Your task to perform on an android device: Go to Google Image 0: 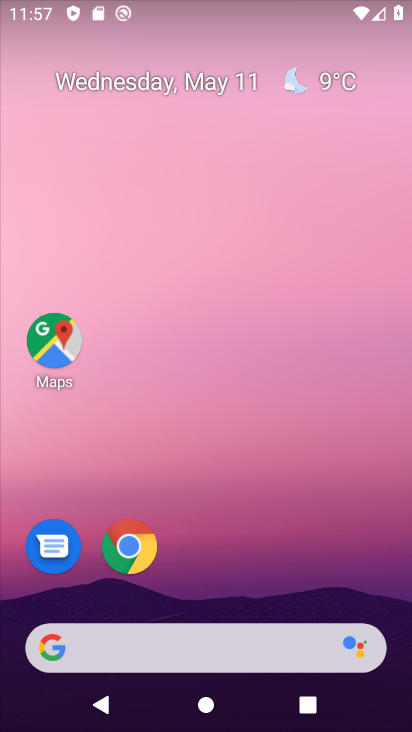
Step 0: click (157, 645)
Your task to perform on an android device: Go to Google Image 1: 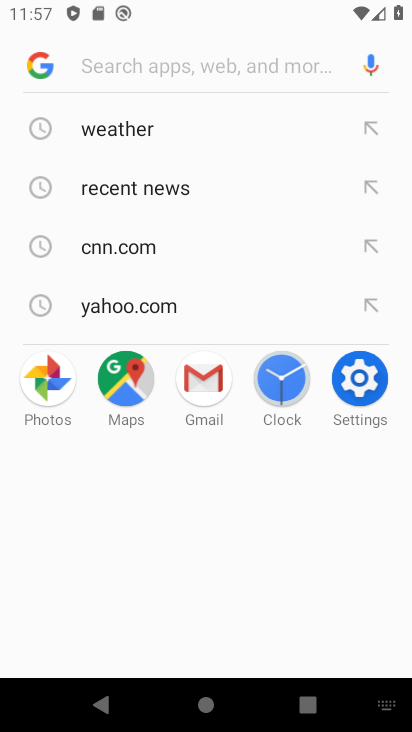
Step 1: click (44, 55)
Your task to perform on an android device: Go to Google Image 2: 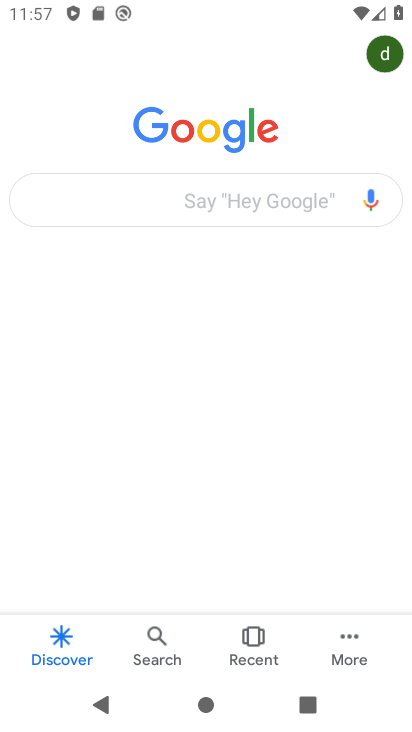
Step 2: task complete